Your task to perform on an android device: move a message to another label in the gmail app Image 0: 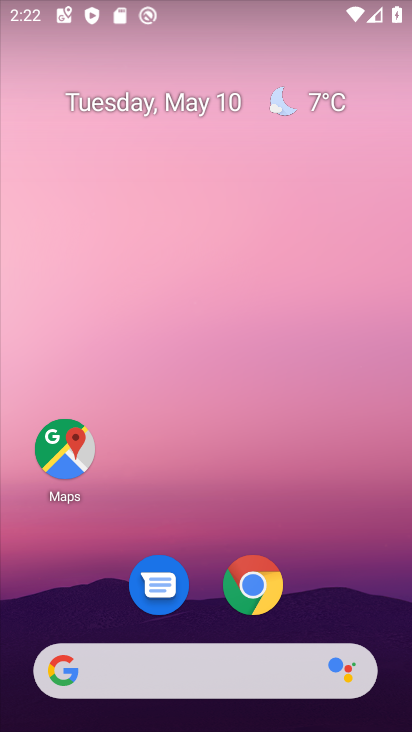
Step 0: drag from (344, 590) to (294, 64)
Your task to perform on an android device: move a message to another label in the gmail app Image 1: 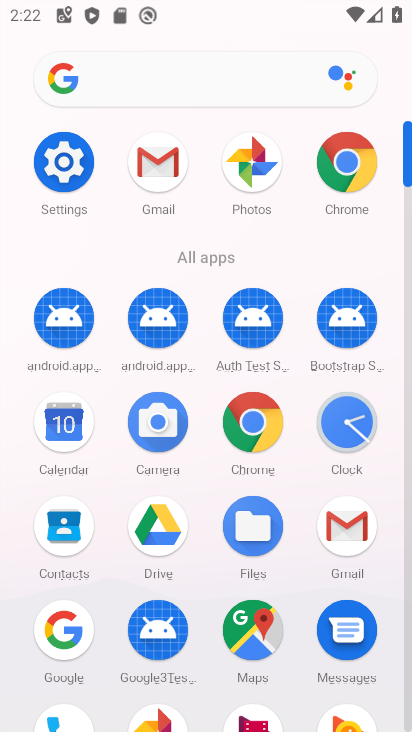
Step 1: click (170, 172)
Your task to perform on an android device: move a message to another label in the gmail app Image 2: 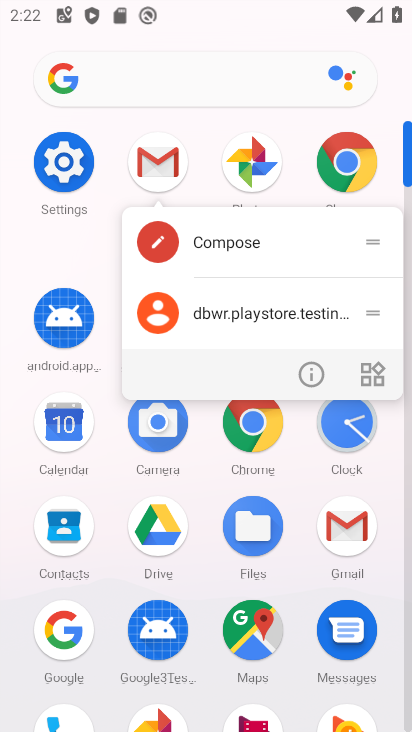
Step 2: click (165, 163)
Your task to perform on an android device: move a message to another label in the gmail app Image 3: 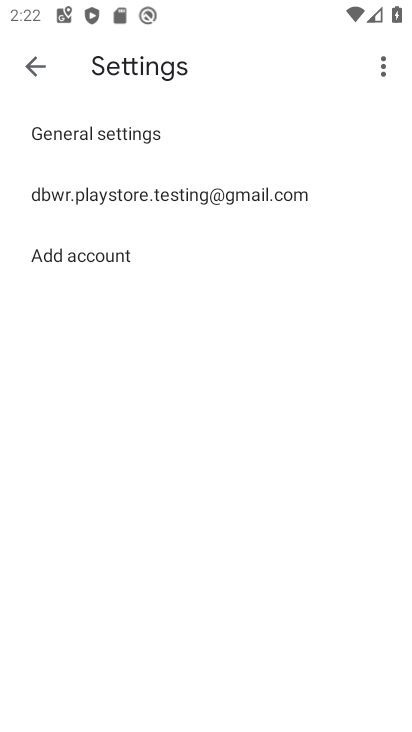
Step 3: click (149, 195)
Your task to perform on an android device: move a message to another label in the gmail app Image 4: 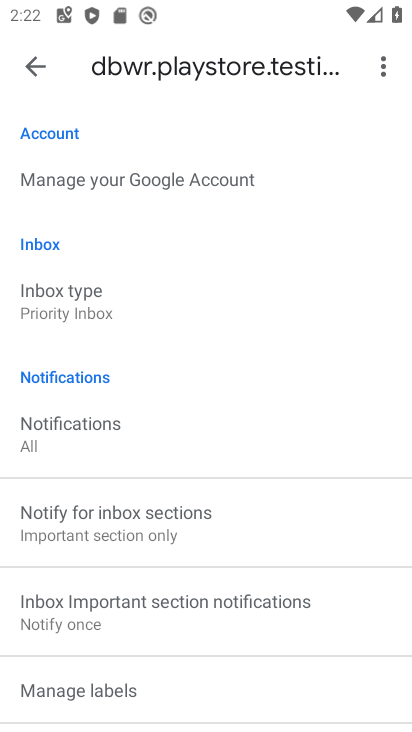
Step 4: click (32, 56)
Your task to perform on an android device: move a message to another label in the gmail app Image 5: 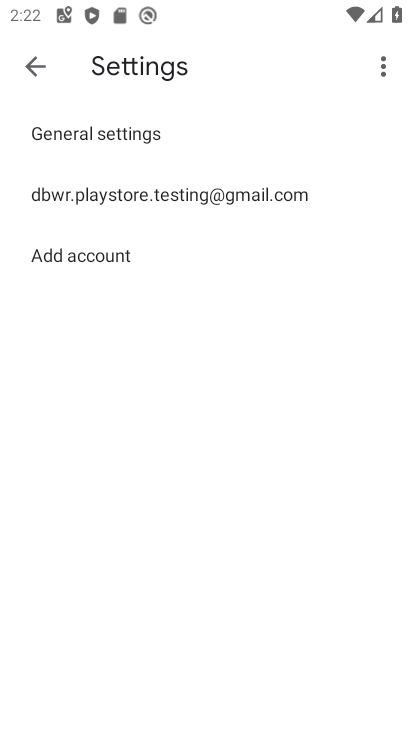
Step 5: click (32, 56)
Your task to perform on an android device: move a message to another label in the gmail app Image 6: 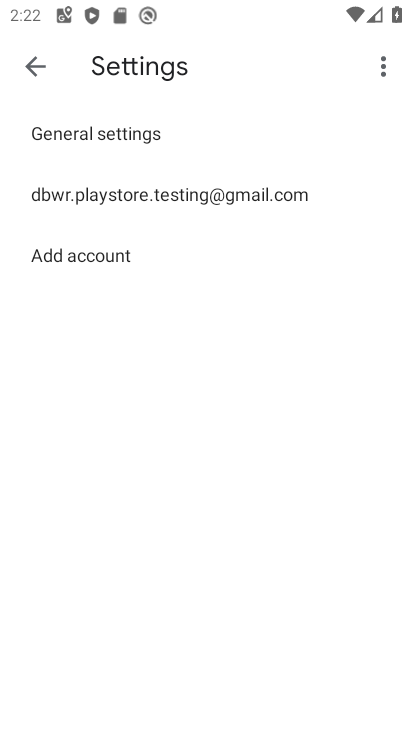
Step 6: click (32, 56)
Your task to perform on an android device: move a message to another label in the gmail app Image 7: 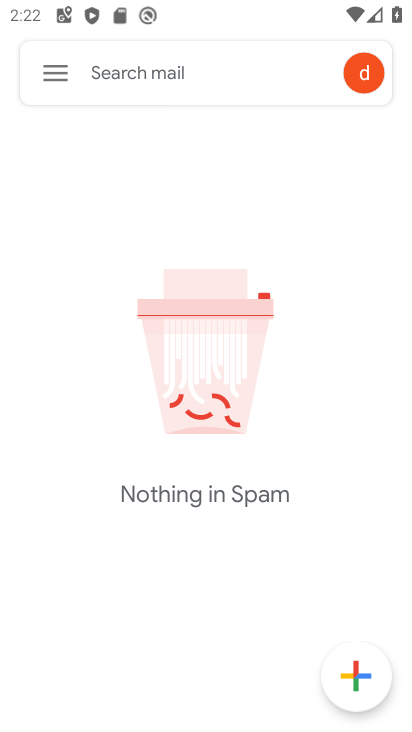
Step 7: click (49, 60)
Your task to perform on an android device: move a message to another label in the gmail app Image 8: 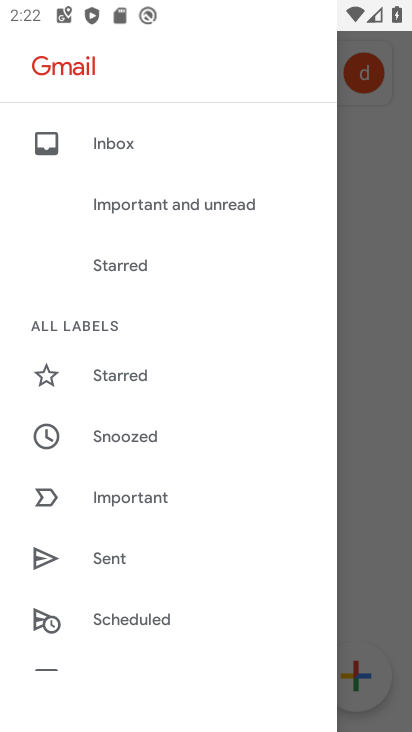
Step 8: drag from (174, 556) to (237, 174)
Your task to perform on an android device: move a message to another label in the gmail app Image 9: 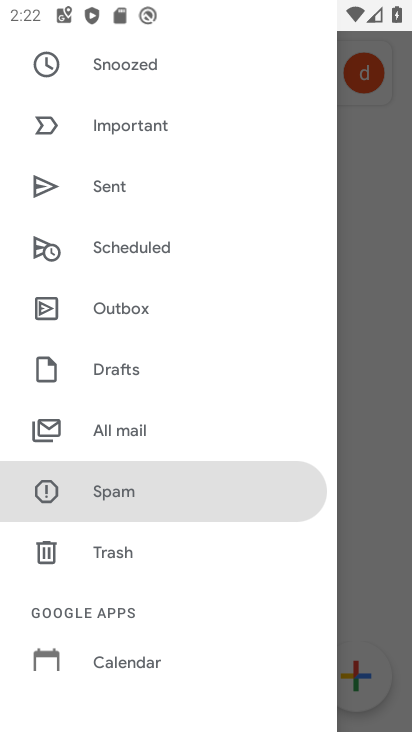
Step 9: click (191, 428)
Your task to perform on an android device: move a message to another label in the gmail app Image 10: 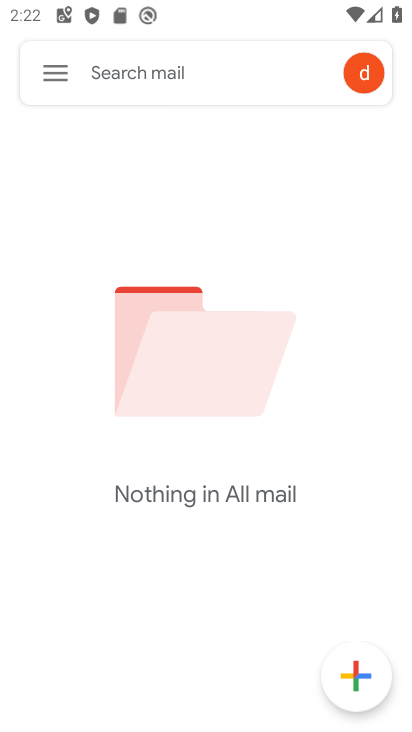
Step 10: task complete